Your task to perform on an android device: turn smart compose on in the gmail app Image 0: 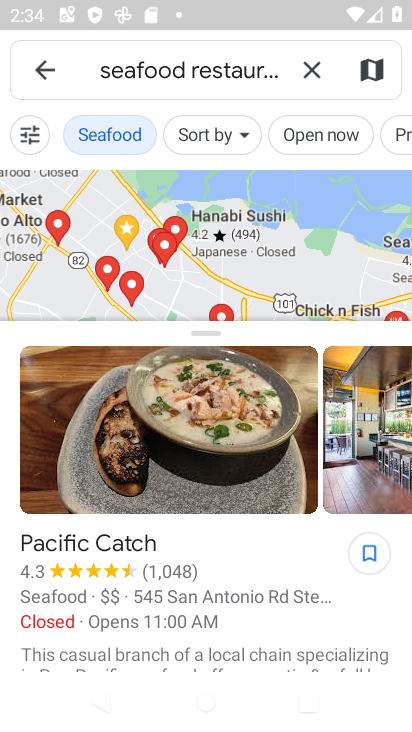
Step 0: press home button
Your task to perform on an android device: turn smart compose on in the gmail app Image 1: 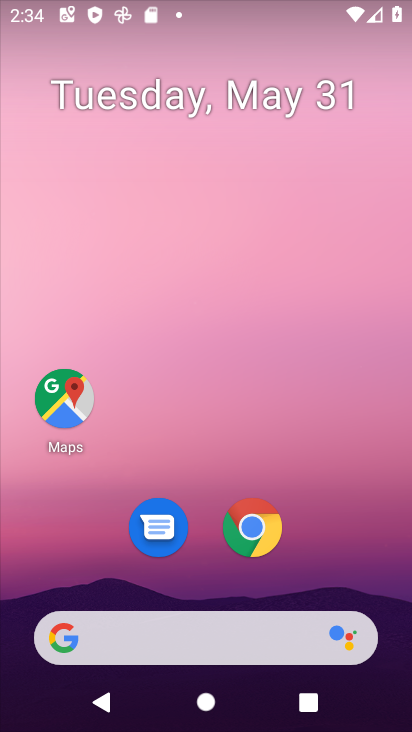
Step 1: drag from (354, 507) to (318, 27)
Your task to perform on an android device: turn smart compose on in the gmail app Image 2: 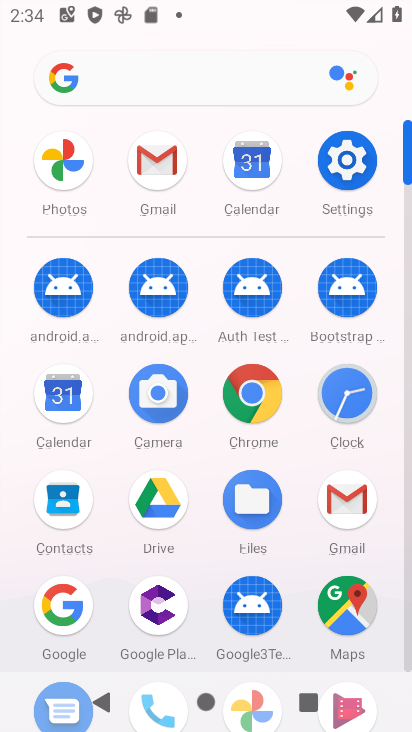
Step 2: click (162, 174)
Your task to perform on an android device: turn smart compose on in the gmail app Image 3: 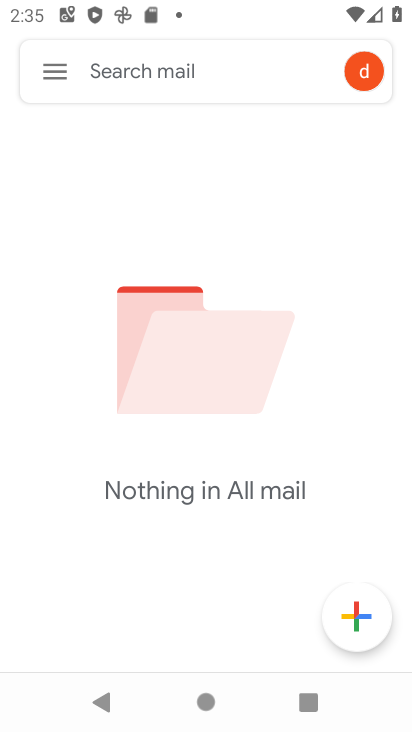
Step 3: click (56, 72)
Your task to perform on an android device: turn smart compose on in the gmail app Image 4: 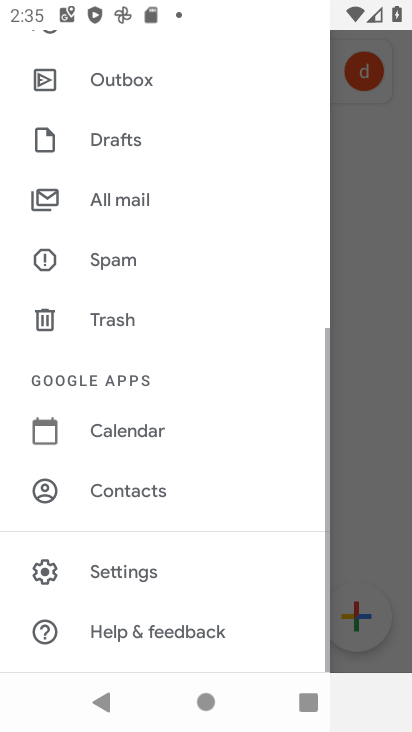
Step 4: drag from (169, 577) to (224, 215)
Your task to perform on an android device: turn smart compose on in the gmail app Image 5: 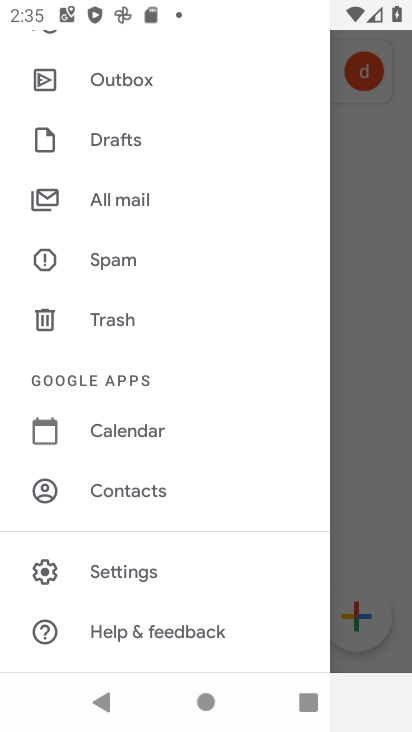
Step 5: click (101, 569)
Your task to perform on an android device: turn smart compose on in the gmail app Image 6: 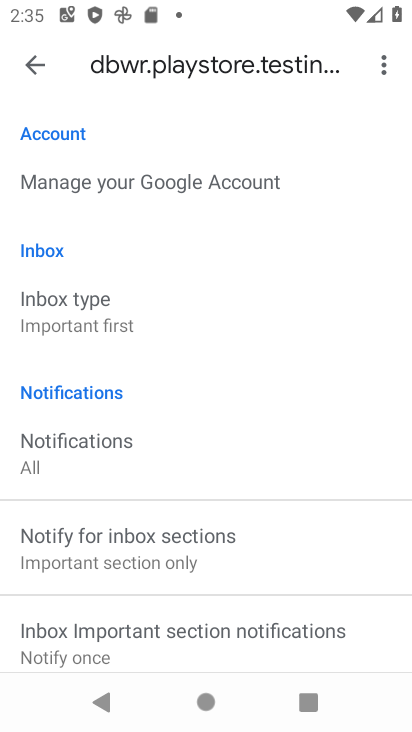
Step 6: task complete